Your task to perform on an android device: toggle notification dots Image 0: 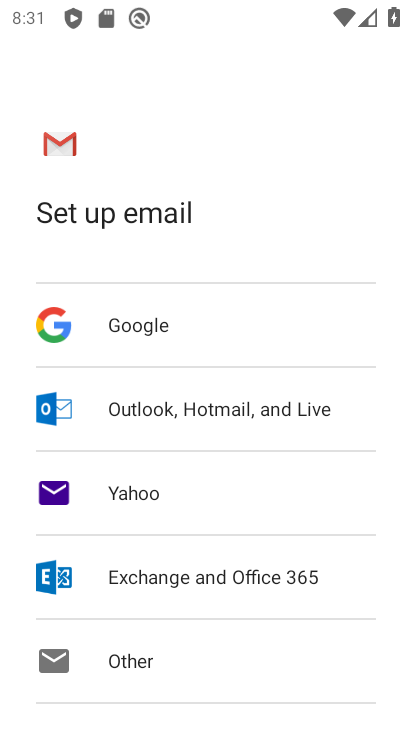
Step 0: press home button
Your task to perform on an android device: toggle notification dots Image 1: 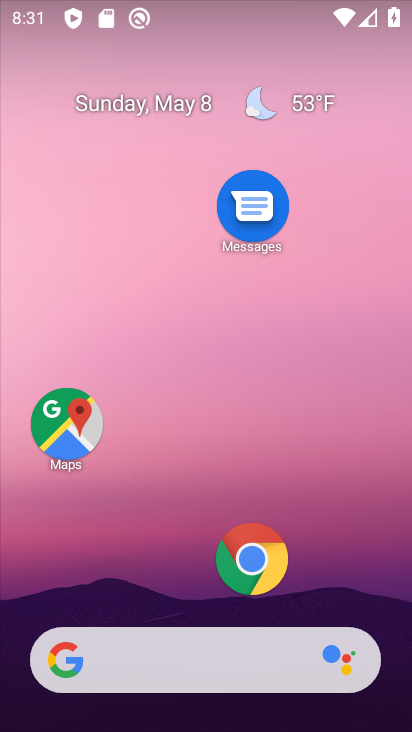
Step 1: drag from (149, 527) to (261, 73)
Your task to perform on an android device: toggle notification dots Image 2: 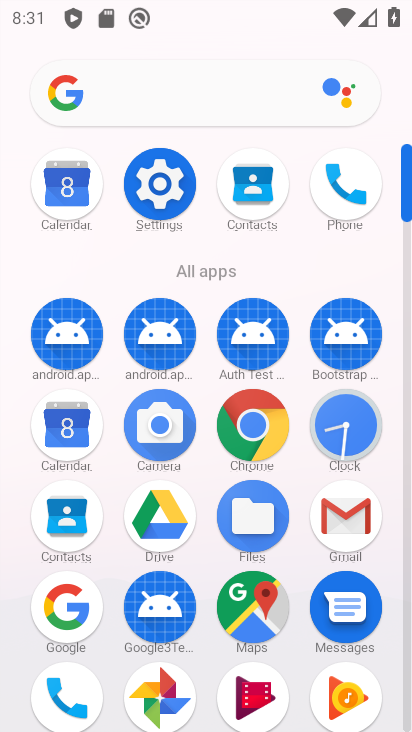
Step 2: click (161, 187)
Your task to perform on an android device: toggle notification dots Image 3: 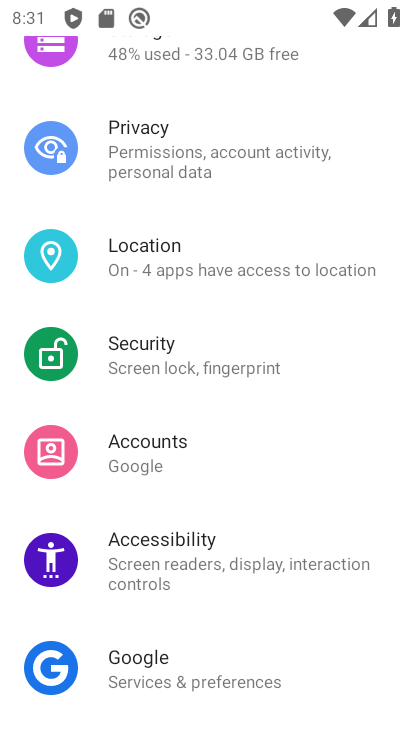
Step 3: drag from (179, 156) to (170, 584)
Your task to perform on an android device: toggle notification dots Image 4: 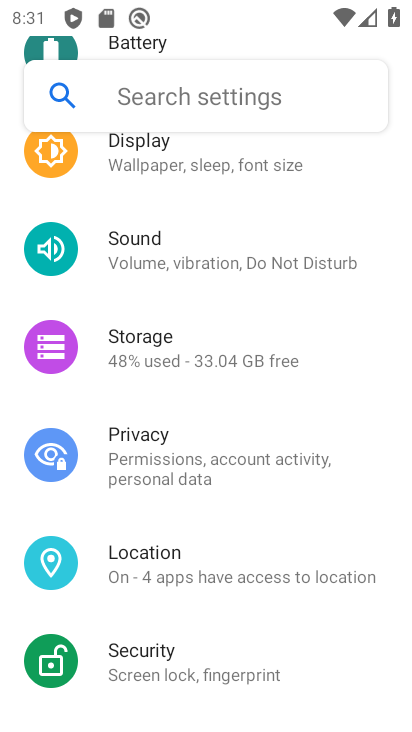
Step 4: drag from (180, 209) to (168, 581)
Your task to perform on an android device: toggle notification dots Image 5: 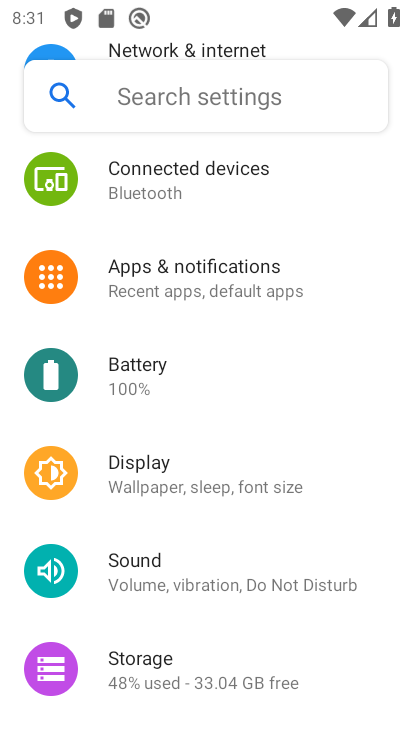
Step 5: click (181, 280)
Your task to perform on an android device: toggle notification dots Image 6: 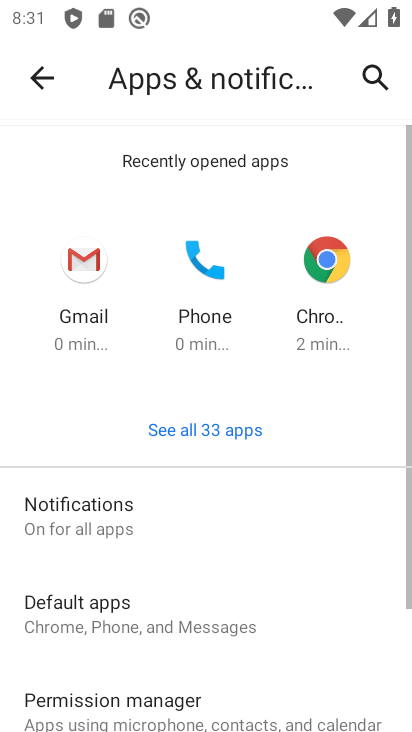
Step 6: click (129, 521)
Your task to perform on an android device: toggle notification dots Image 7: 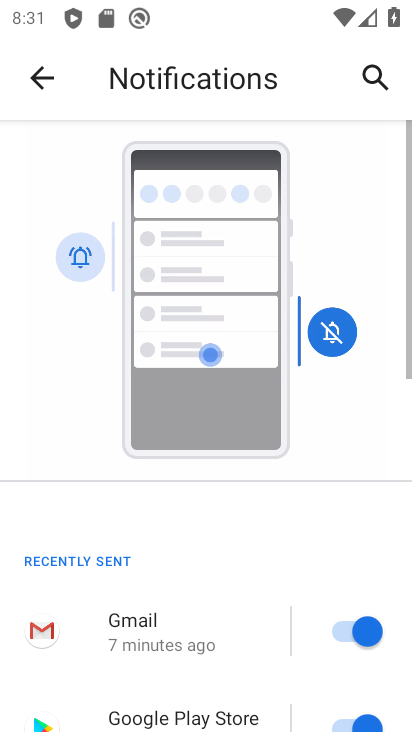
Step 7: drag from (183, 632) to (164, 5)
Your task to perform on an android device: toggle notification dots Image 8: 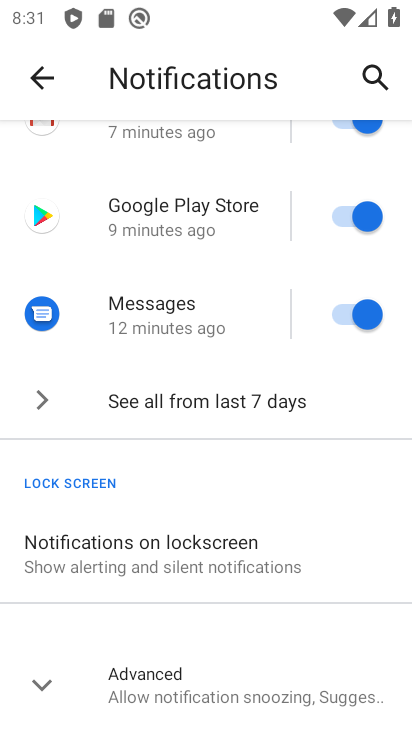
Step 8: drag from (175, 671) to (232, 168)
Your task to perform on an android device: toggle notification dots Image 9: 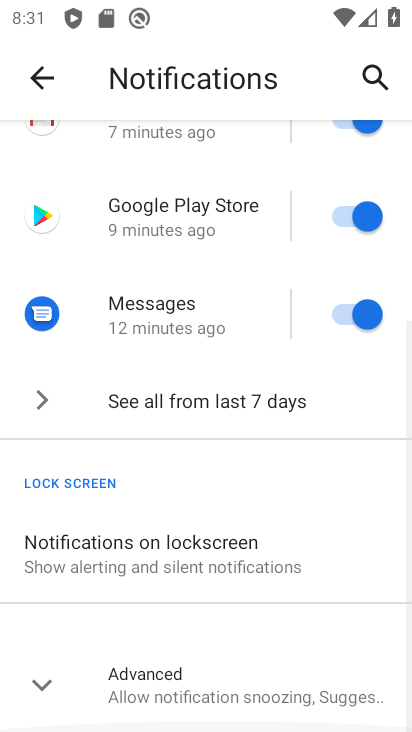
Step 9: click (175, 704)
Your task to perform on an android device: toggle notification dots Image 10: 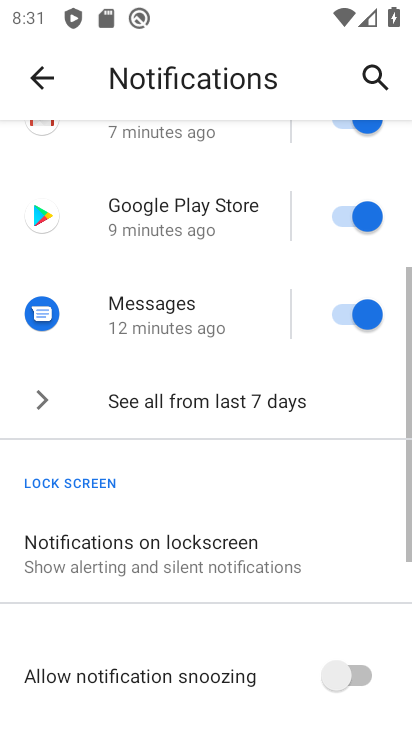
Step 10: drag from (257, 598) to (294, 101)
Your task to perform on an android device: toggle notification dots Image 11: 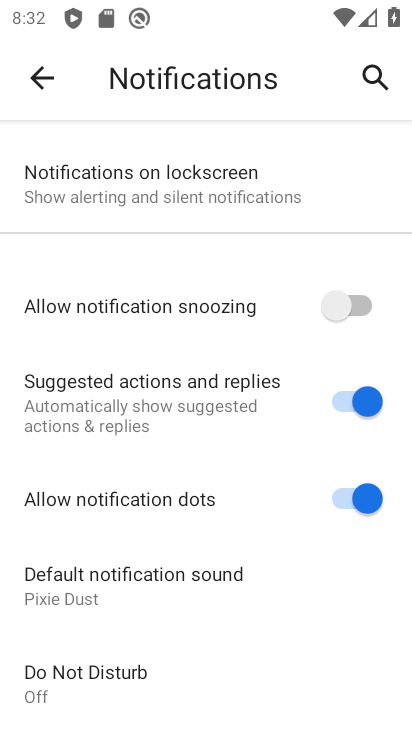
Step 11: click (339, 506)
Your task to perform on an android device: toggle notification dots Image 12: 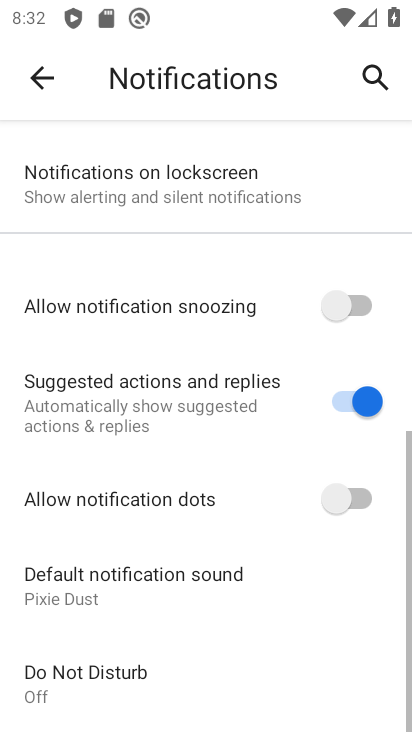
Step 12: task complete